Your task to perform on an android device: Open accessibility settings Image 0: 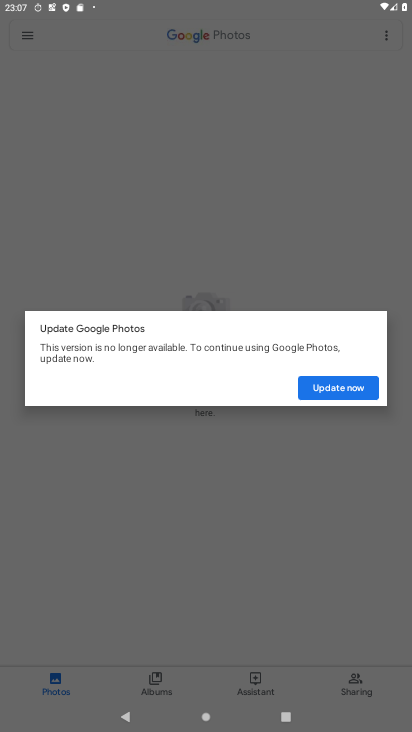
Step 0: press home button
Your task to perform on an android device: Open accessibility settings Image 1: 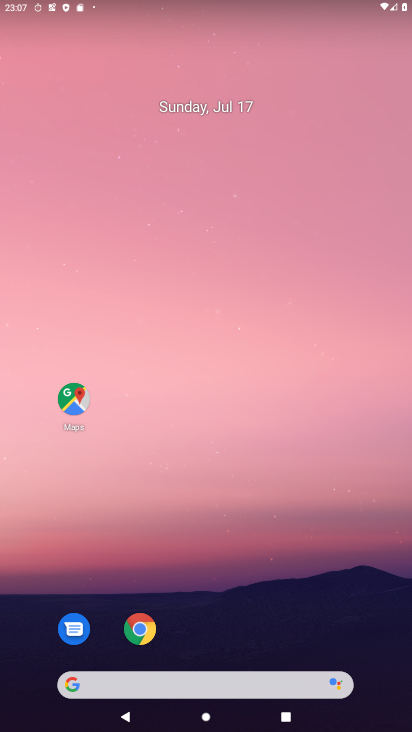
Step 1: drag from (236, 721) to (235, 103)
Your task to perform on an android device: Open accessibility settings Image 2: 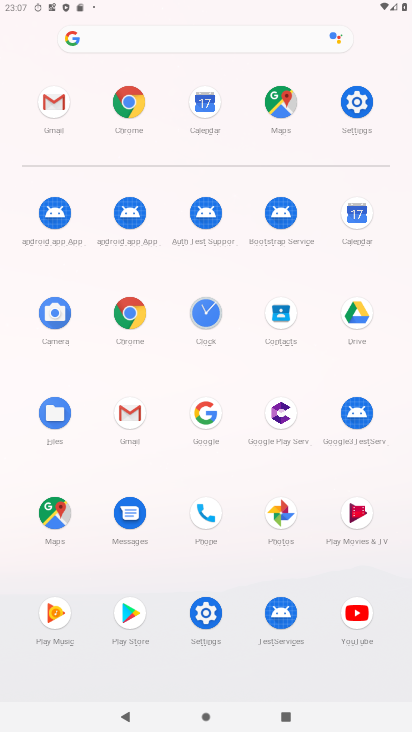
Step 2: click (355, 95)
Your task to perform on an android device: Open accessibility settings Image 3: 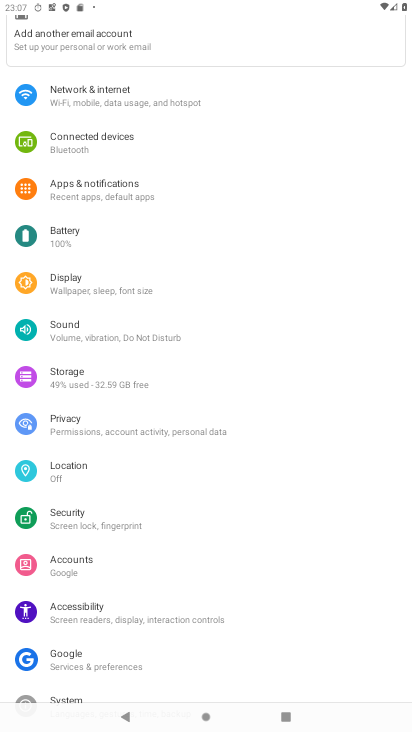
Step 3: click (87, 611)
Your task to perform on an android device: Open accessibility settings Image 4: 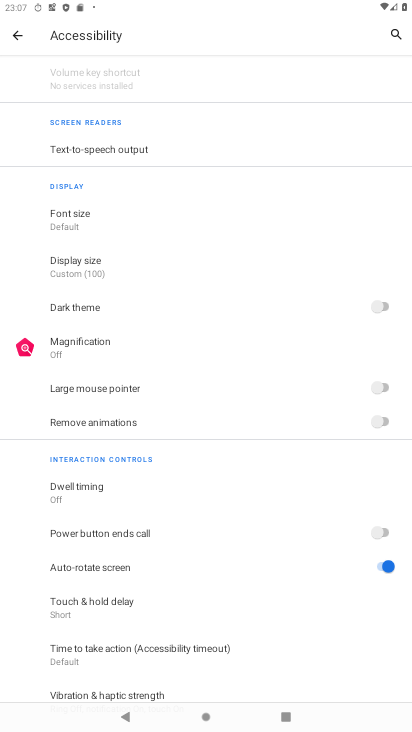
Step 4: task complete